Your task to perform on an android device: turn on bluetooth scan Image 0: 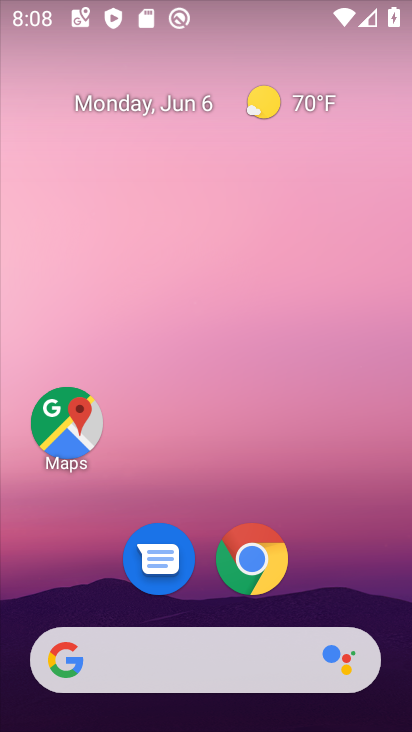
Step 0: click (252, 558)
Your task to perform on an android device: turn on bluetooth scan Image 1: 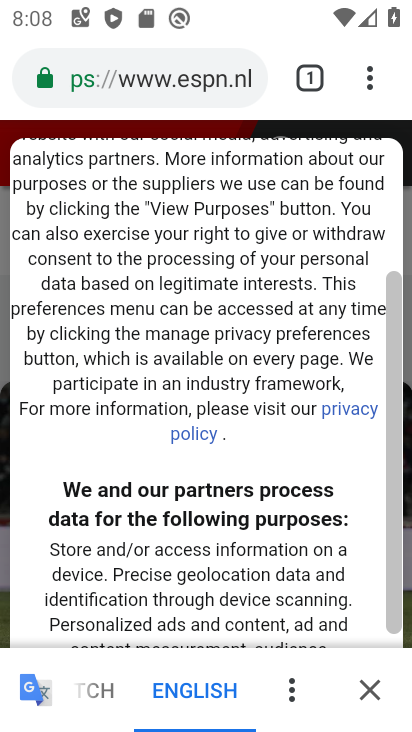
Step 1: press home button
Your task to perform on an android device: turn on bluetooth scan Image 2: 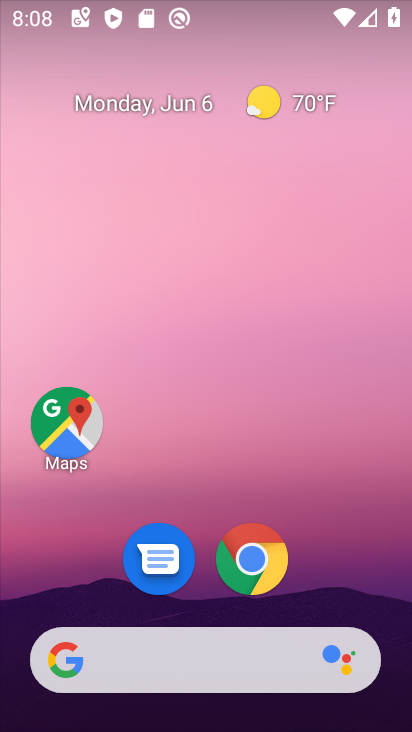
Step 2: drag from (196, 728) to (206, 163)
Your task to perform on an android device: turn on bluetooth scan Image 3: 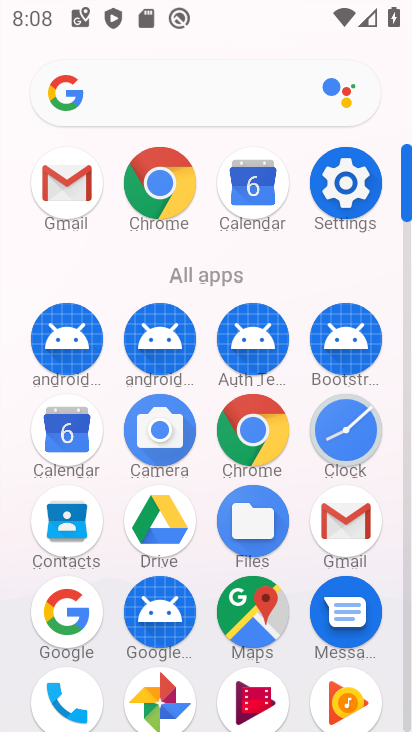
Step 3: click (337, 186)
Your task to perform on an android device: turn on bluetooth scan Image 4: 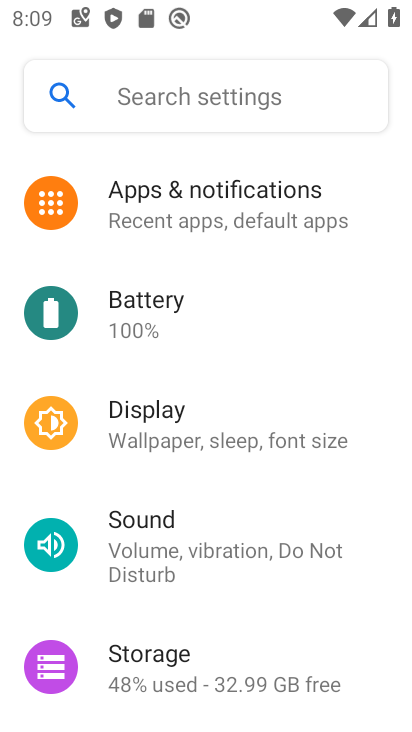
Step 4: drag from (231, 647) to (231, 236)
Your task to perform on an android device: turn on bluetooth scan Image 5: 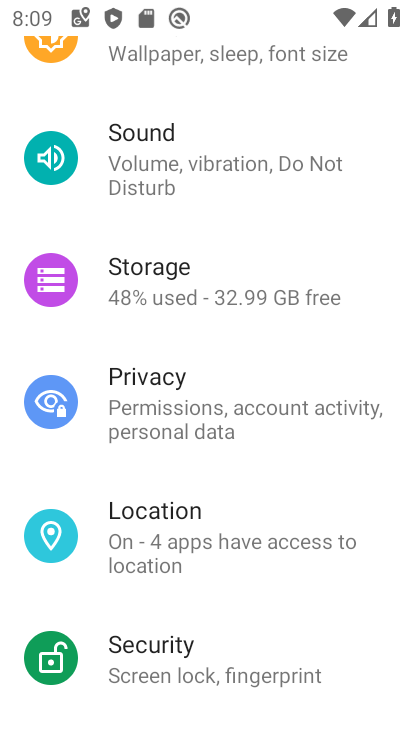
Step 5: click (164, 537)
Your task to perform on an android device: turn on bluetooth scan Image 6: 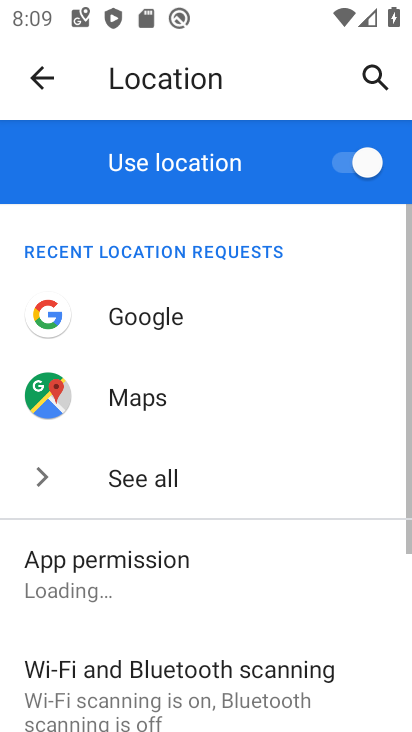
Step 6: drag from (202, 640) to (205, 290)
Your task to perform on an android device: turn on bluetooth scan Image 7: 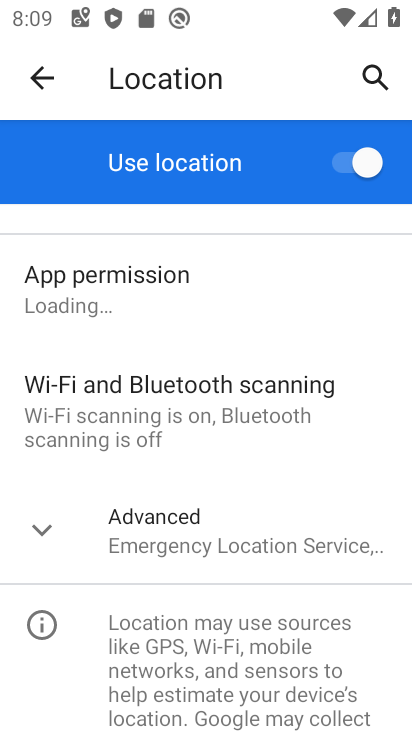
Step 7: click (142, 415)
Your task to perform on an android device: turn on bluetooth scan Image 8: 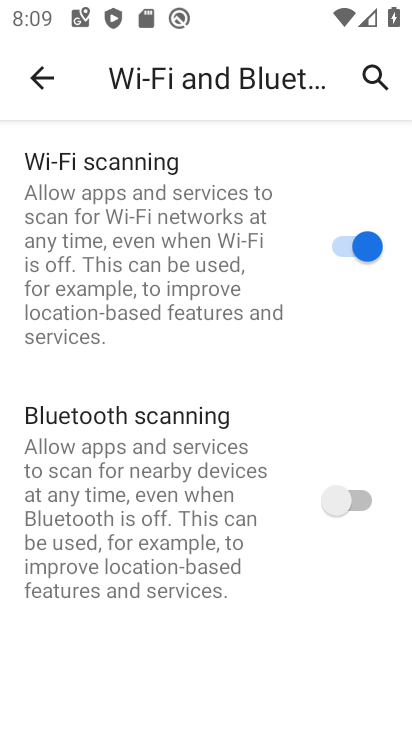
Step 8: click (354, 500)
Your task to perform on an android device: turn on bluetooth scan Image 9: 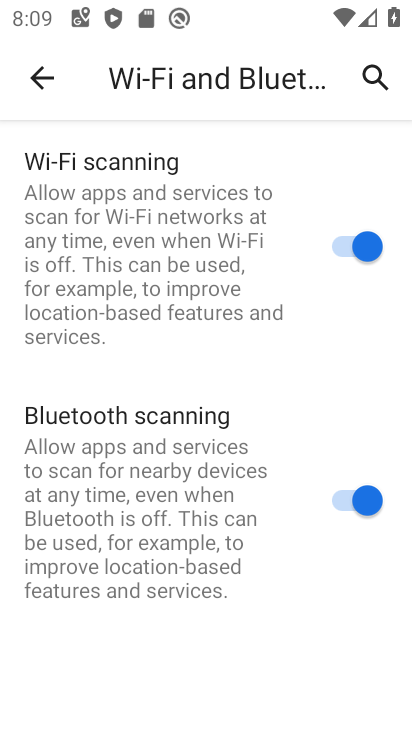
Step 9: task complete